Your task to perform on an android device: Go to CNN.com Image 0: 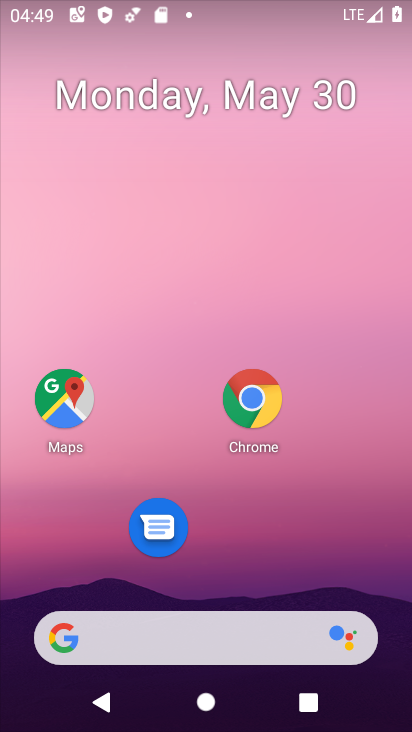
Step 0: click (253, 402)
Your task to perform on an android device: Go to CNN.com Image 1: 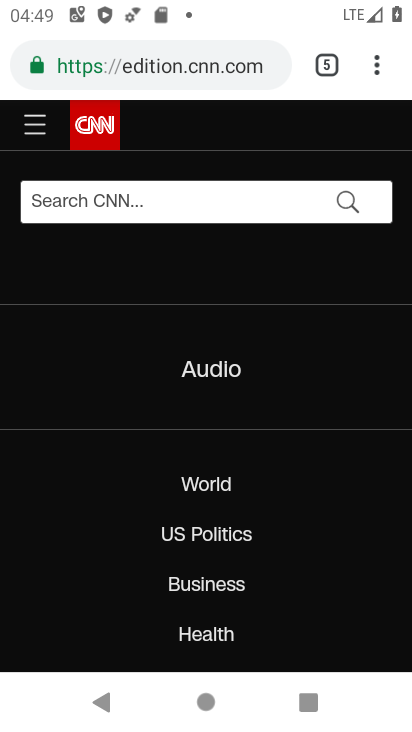
Step 1: task complete